Your task to perform on an android device: Go to ESPN.com Image 0: 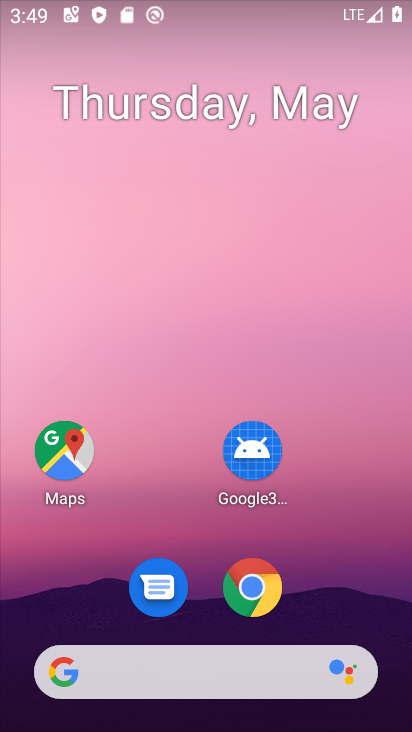
Step 0: drag from (308, 584) to (292, 279)
Your task to perform on an android device: Go to ESPN.com Image 1: 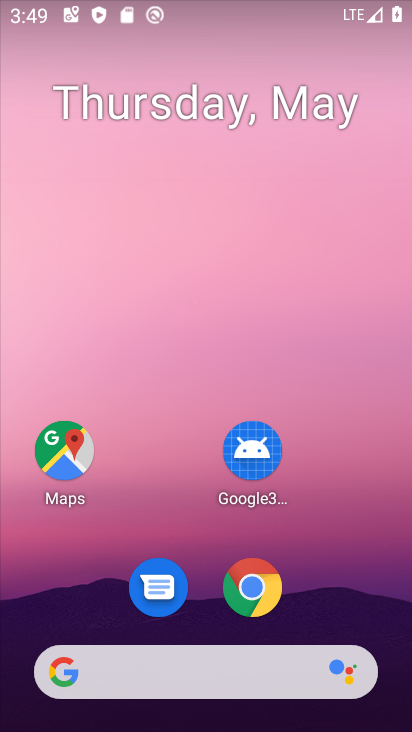
Step 1: click (267, 590)
Your task to perform on an android device: Go to ESPN.com Image 2: 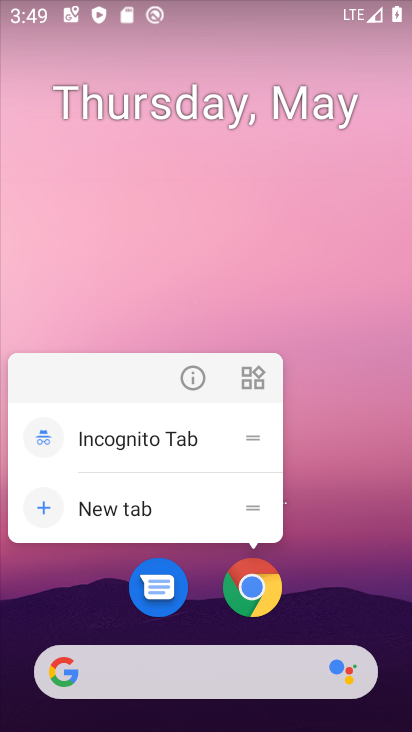
Step 2: click (280, 656)
Your task to perform on an android device: Go to ESPN.com Image 3: 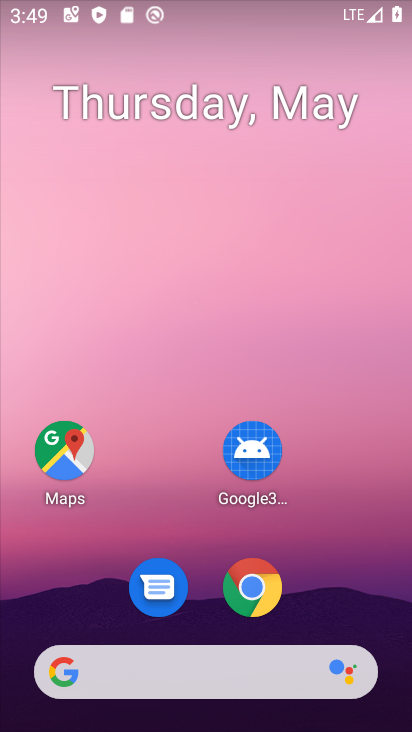
Step 3: click (265, 608)
Your task to perform on an android device: Go to ESPN.com Image 4: 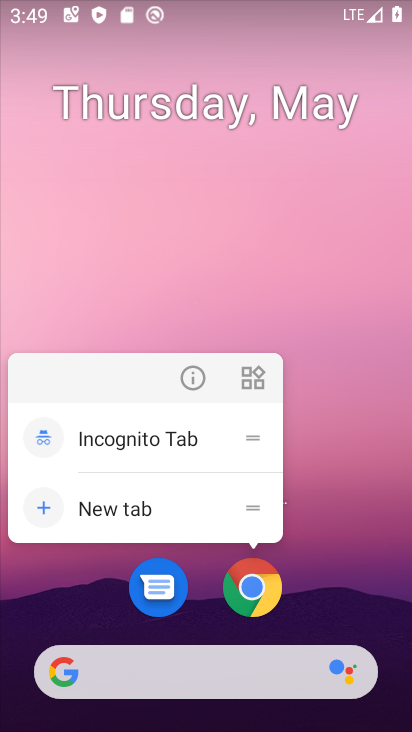
Step 4: click (265, 608)
Your task to perform on an android device: Go to ESPN.com Image 5: 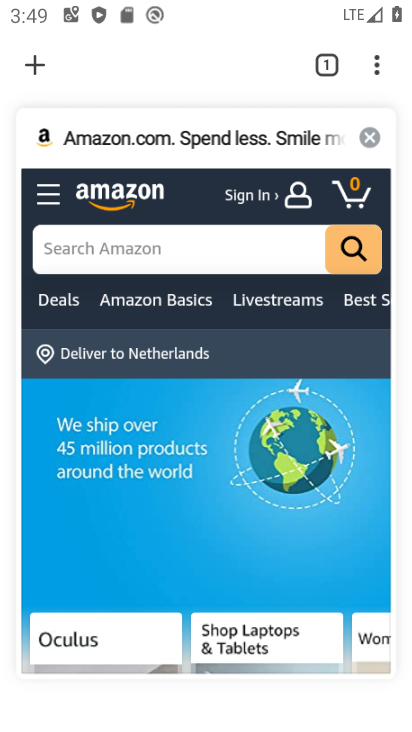
Step 5: click (42, 80)
Your task to perform on an android device: Go to ESPN.com Image 6: 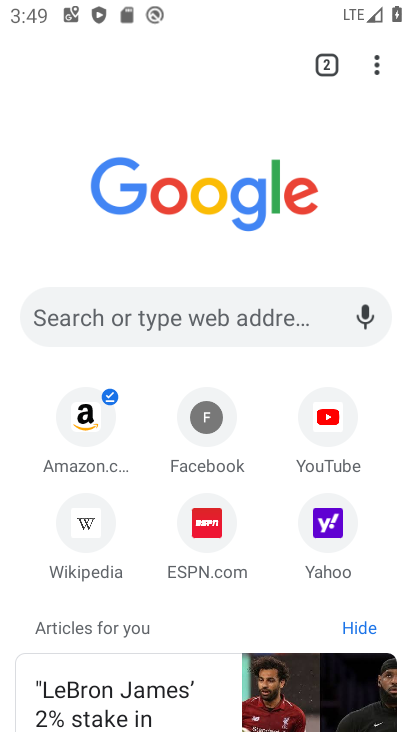
Step 6: click (228, 530)
Your task to perform on an android device: Go to ESPN.com Image 7: 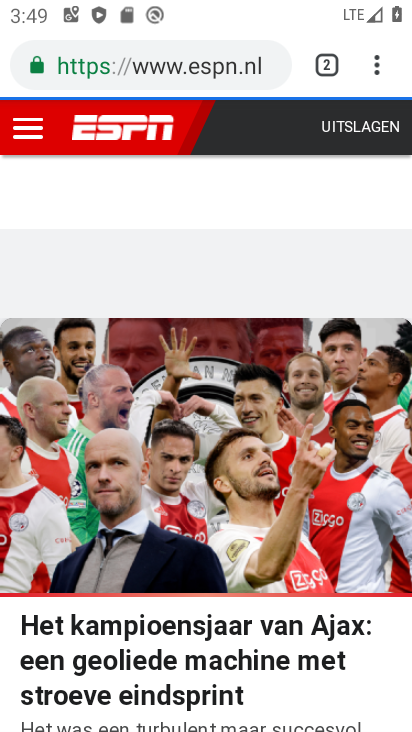
Step 7: task complete